Your task to perform on an android device: Open Reddit.com Image 0: 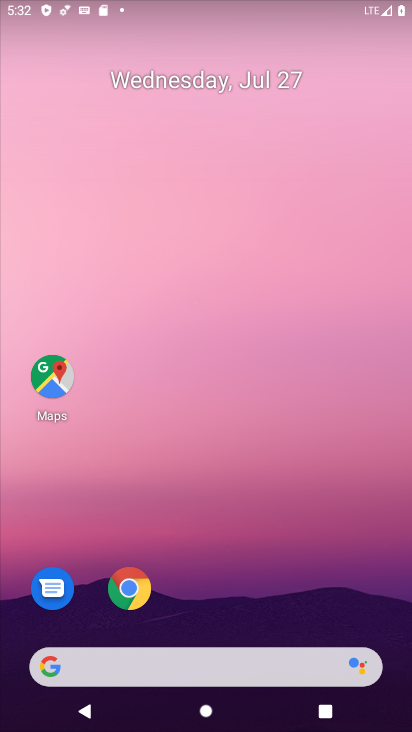
Step 0: click (326, 50)
Your task to perform on an android device: Open Reddit.com Image 1: 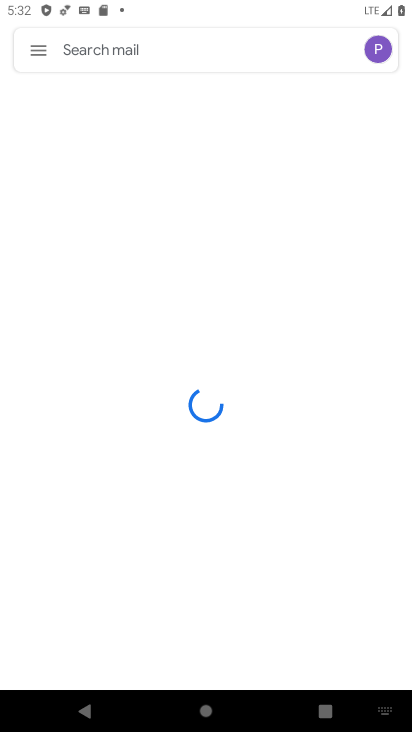
Step 1: press home button
Your task to perform on an android device: Open Reddit.com Image 2: 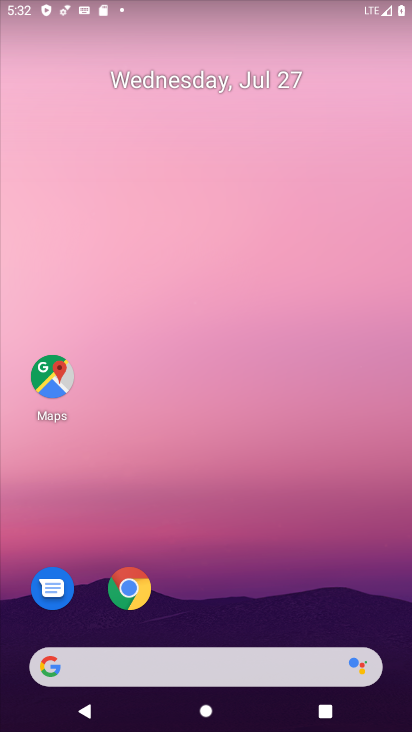
Step 2: drag from (208, 670) to (322, 41)
Your task to perform on an android device: Open Reddit.com Image 3: 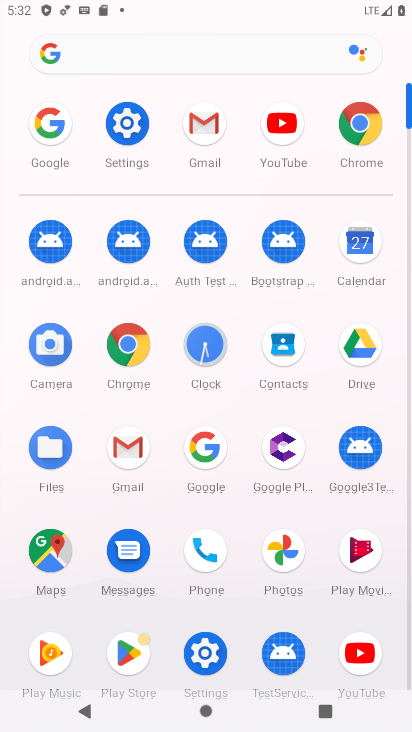
Step 3: click (124, 344)
Your task to perform on an android device: Open Reddit.com Image 4: 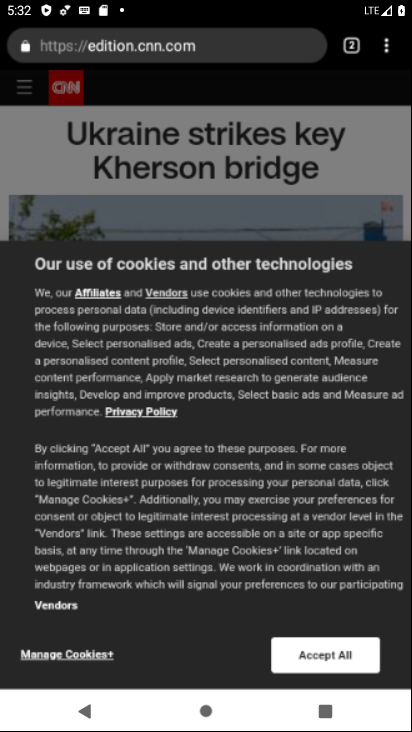
Step 4: click (223, 37)
Your task to perform on an android device: Open Reddit.com Image 5: 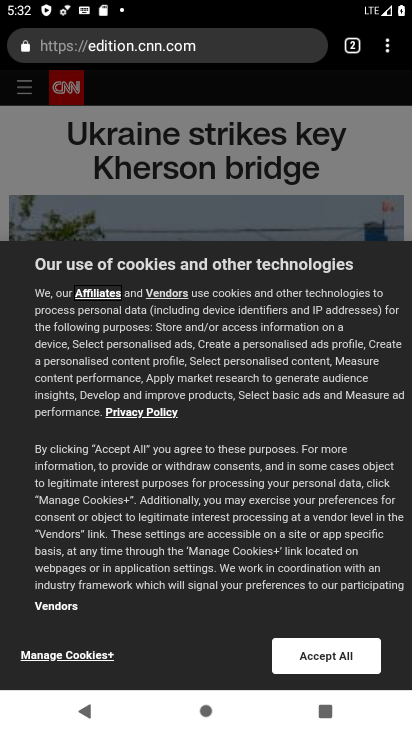
Step 5: click (217, 36)
Your task to perform on an android device: Open Reddit.com Image 6: 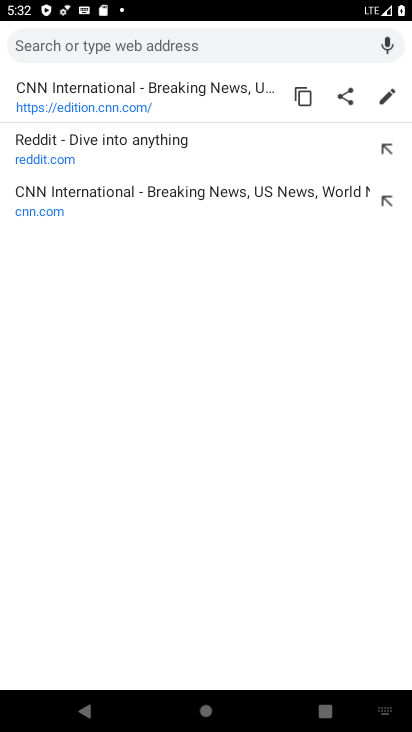
Step 6: type "reddit.com"
Your task to perform on an android device: Open Reddit.com Image 7: 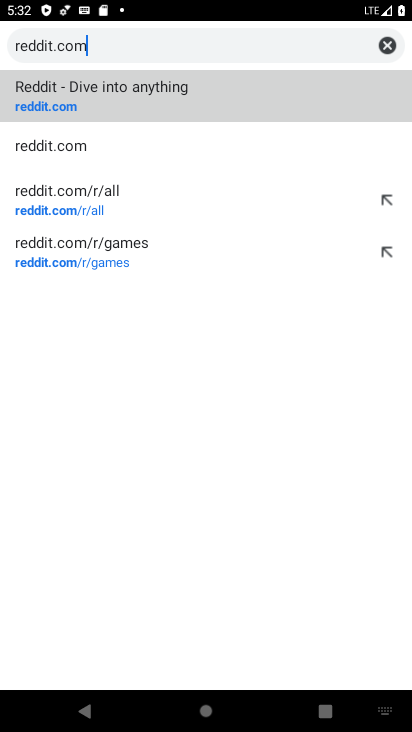
Step 7: click (157, 101)
Your task to perform on an android device: Open Reddit.com Image 8: 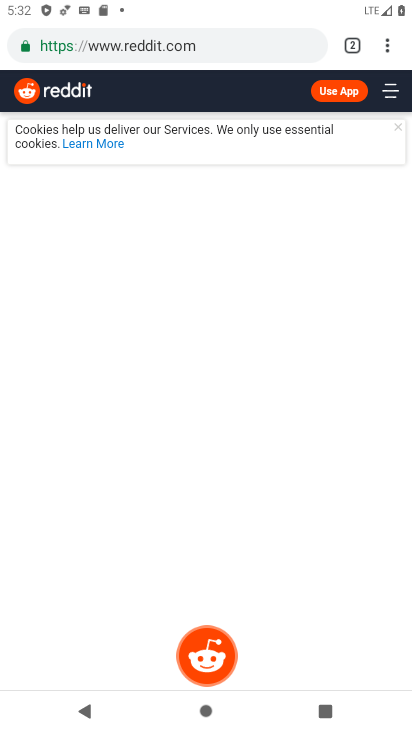
Step 8: task complete